Your task to perform on an android device: check data usage Image 0: 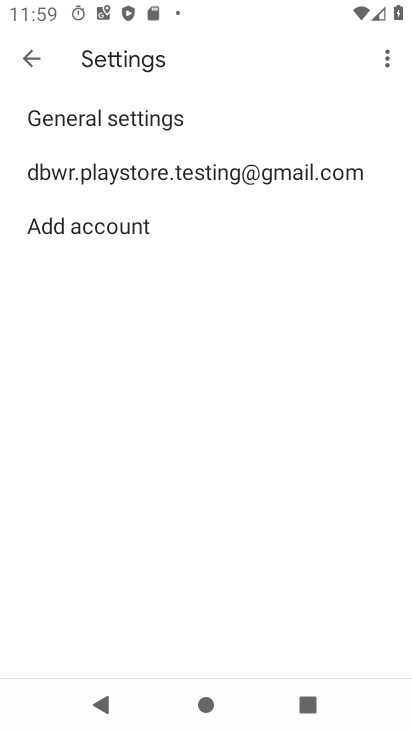
Step 0: press home button
Your task to perform on an android device: check data usage Image 1: 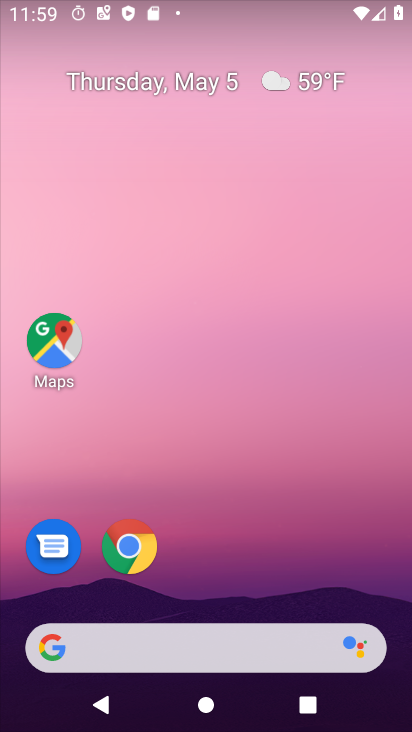
Step 1: drag from (295, 590) to (280, 232)
Your task to perform on an android device: check data usage Image 2: 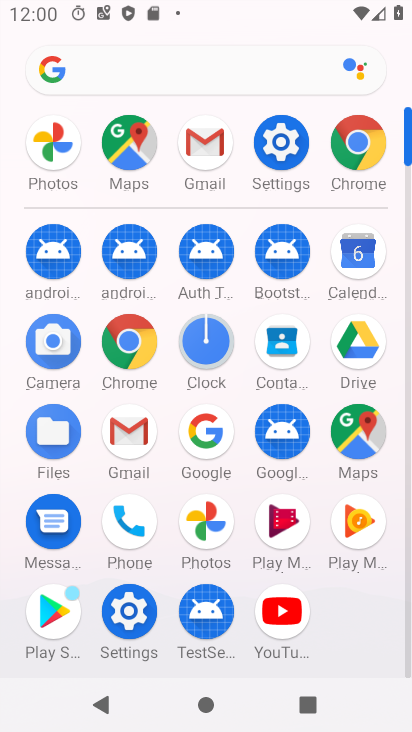
Step 2: click (287, 154)
Your task to perform on an android device: check data usage Image 3: 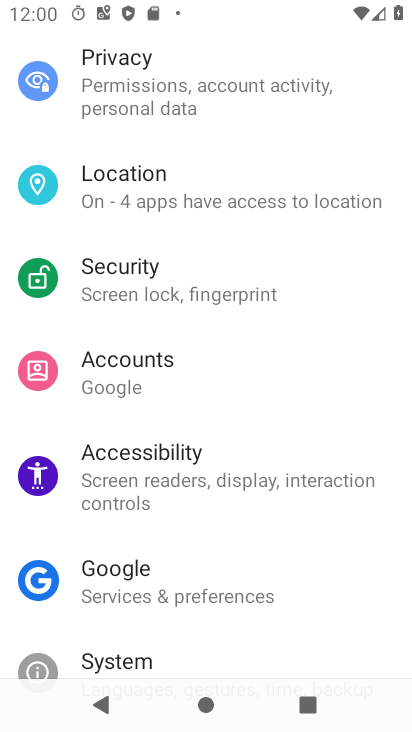
Step 3: drag from (308, 158) to (303, 513)
Your task to perform on an android device: check data usage Image 4: 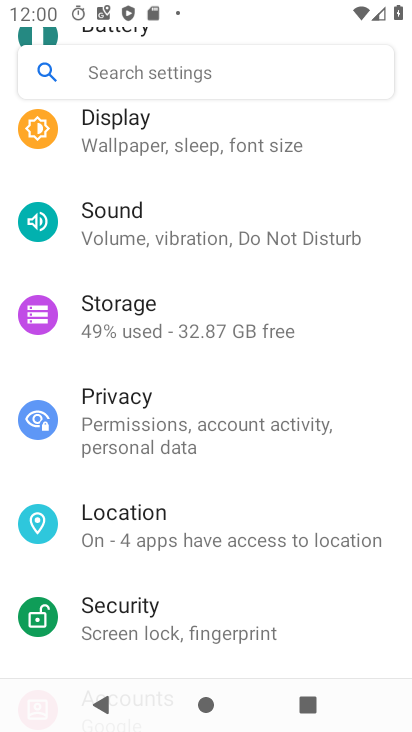
Step 4: drag from (275, 192) to (286, 526)
Your task to perform on an android device: check data usage Image 5: 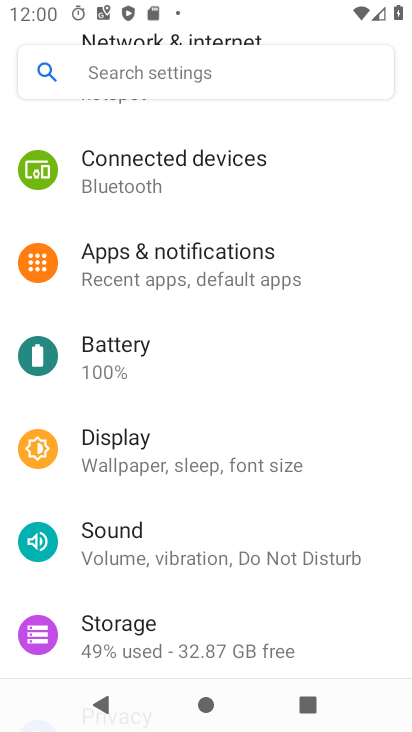
Step 5: drag from (235, 187) to (226, 608)
Your task to perform on an android device: check data usage Image 6: 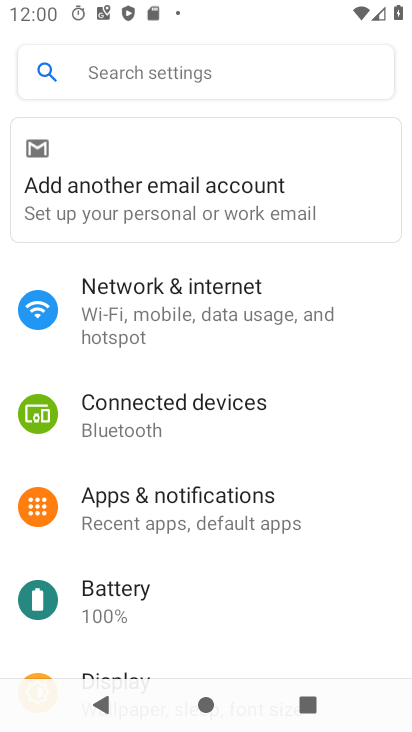
Step 6: click (204, 311)
Your task to perform on an android device: check data usage Image 7: 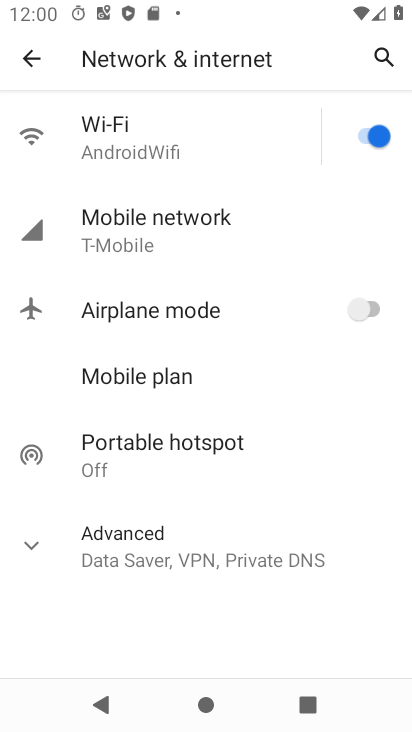
Step 7: click (139, 249)
Your task to perform on an android device: check data usage Image 8: 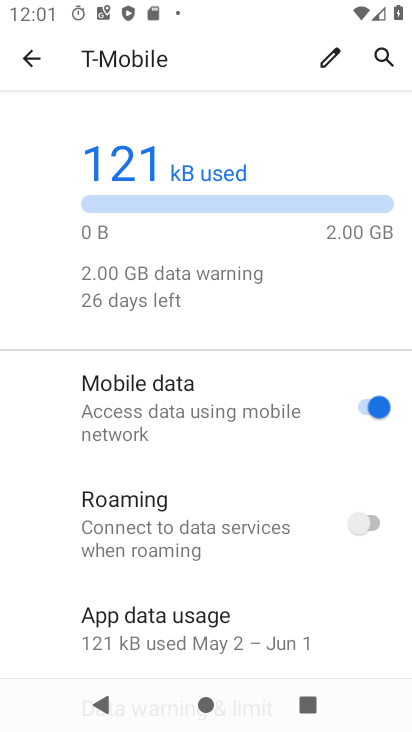
Step 8: click (210, 625)
Your task to perform on an android device: check data usage Image 9: 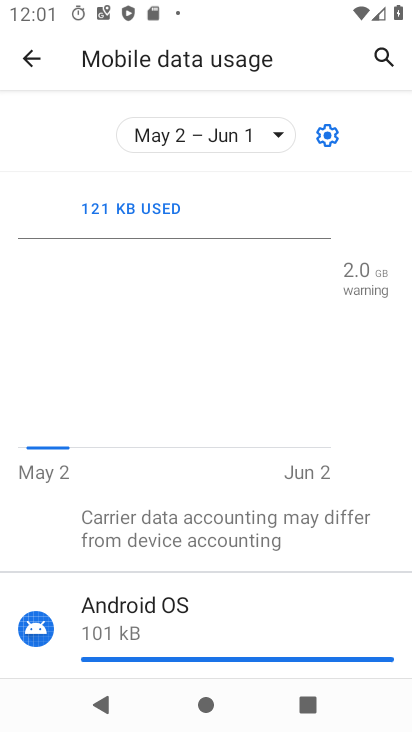
Step 9: task complete